Your task to perform on an android device: Is it going to rain tomorrow? Image 0: 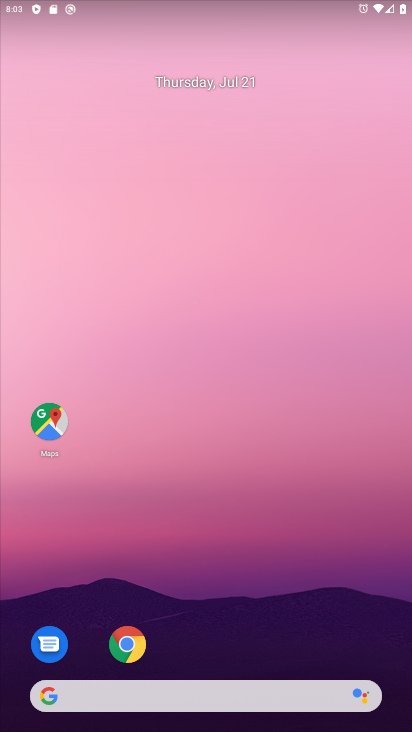
Step 0: click (248, 687)
Your task to perform on an android device: Is it going to rain tomorrow? Image 1: 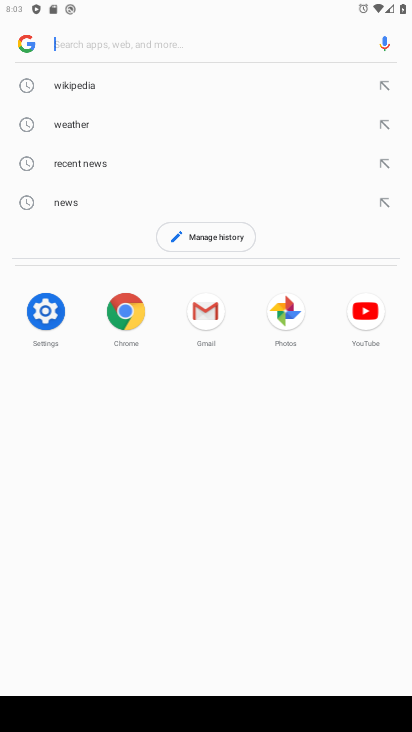
Step 1: type "weather"
Your task to perform on an android device: Is it going to rain tomorrow? Image 2: 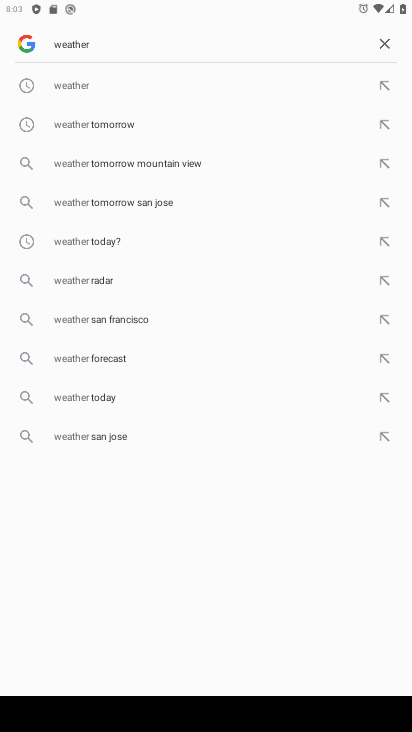
Step 2: click (137, 126)
Your task to perform on an android device: Is it going to rain tomorrow? Image 3: 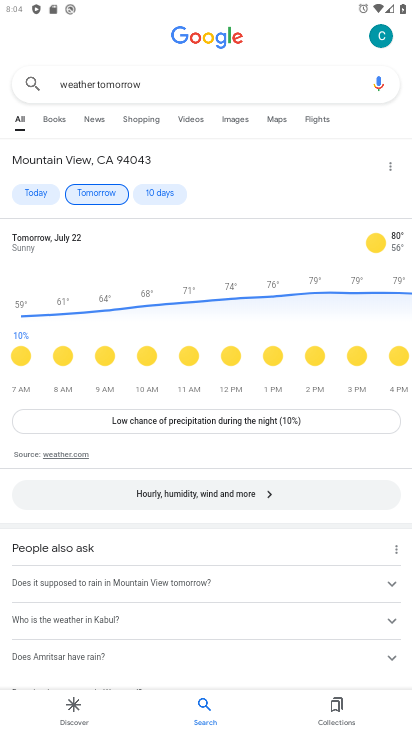
Step 3: task complete